Your task to perform on an android device: What's the weather? Image 0: 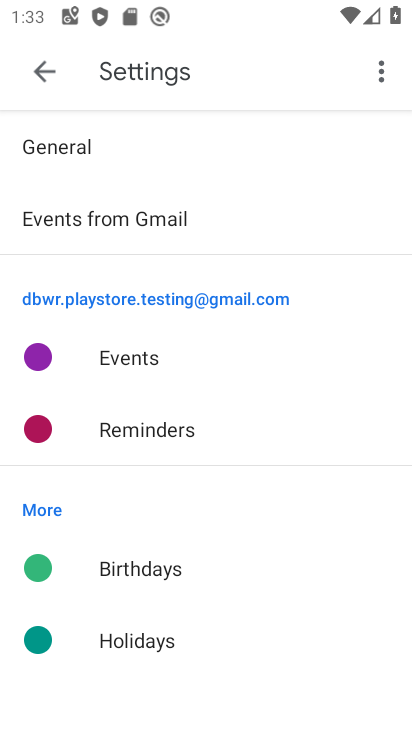
Step 0: press home button
Your task to perform on an android device: What's the weather? Image 1: 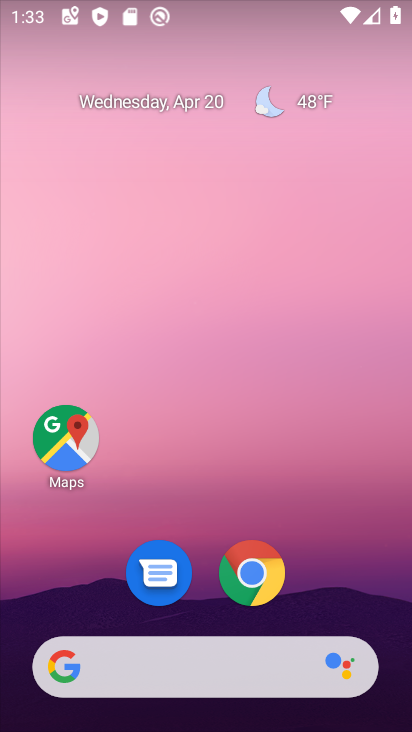
Step 1: click (308, 99)
Your task to perform on an android device: What's the weather? Image 2: 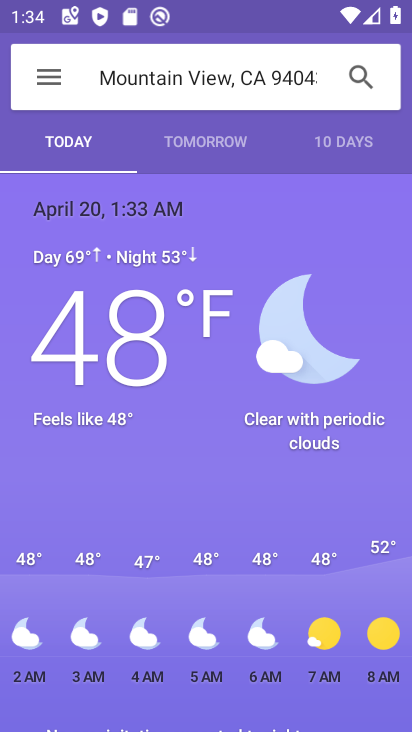
Step 2: task complete